Your task to perform on an android device: choose inbox layout in the gmail app Image 0: 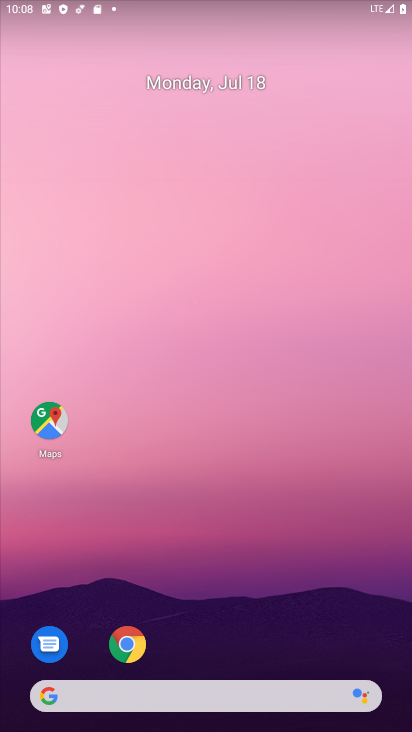
Step 0: drag from (346, 632) to (351, 155)
Your task to perform on an android device: choose inbox layout in the gmail app Image 1: 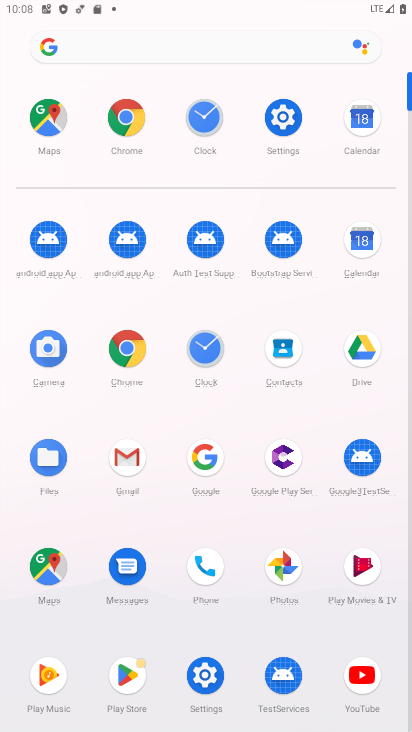
Step 1: click (124, 465)
Your task to perform on an android device: choose inbox layout in the gmail app Image 2: 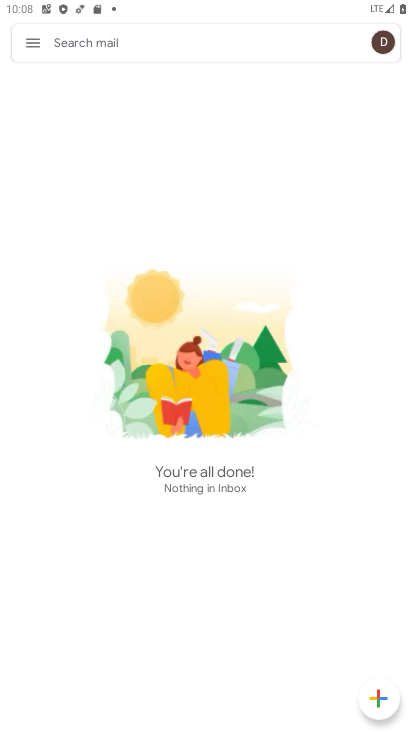
Step 2: click (33, 39)
Your task to perform on an android device: choose inbox layout in the gmail app Image 3: 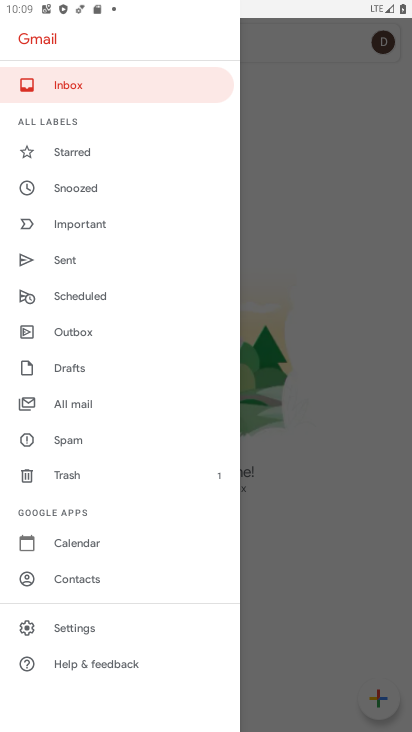
Step 3: drag from (150, 353) to (153, 288)
Your task to perform on an android device: choose inbox layout in the gmail app Image 4: 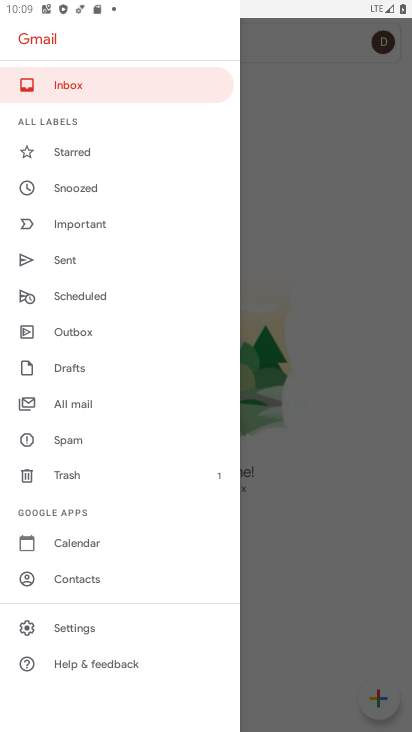
Step 4: click (113, 637)
Your task to perform on an android device: choose inbox layout in the gmail app Image 5: 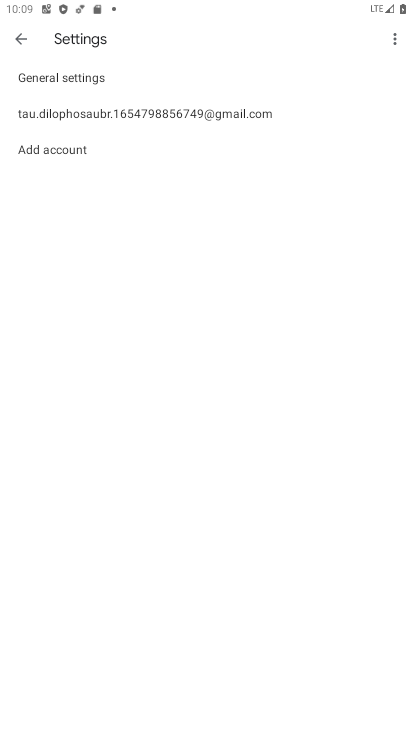
Step 5: click (281, 116)
Your task to perform on an android device: choose inbox layout in the gmail app Image 6: 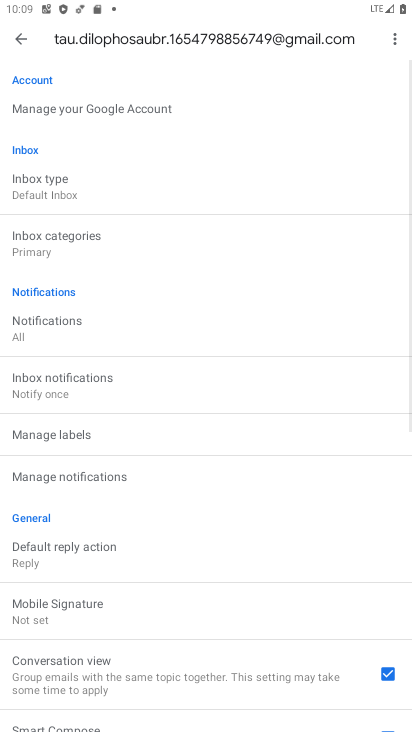
Step 6: drag from (322, 343) to (322, 282)
Your task to perform on an android device: choose inbox layout in the gmail app Image 7: 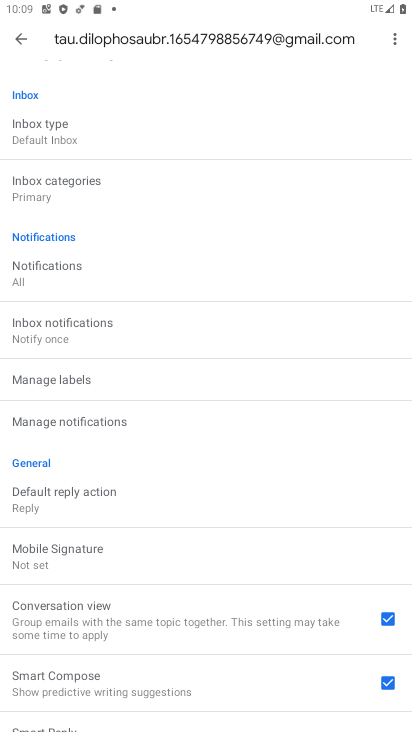
Step 7: drag from (318, 391) to (321, 321)
Your task to perform on an android device: choose inbox layout in the gmail app Image 8: 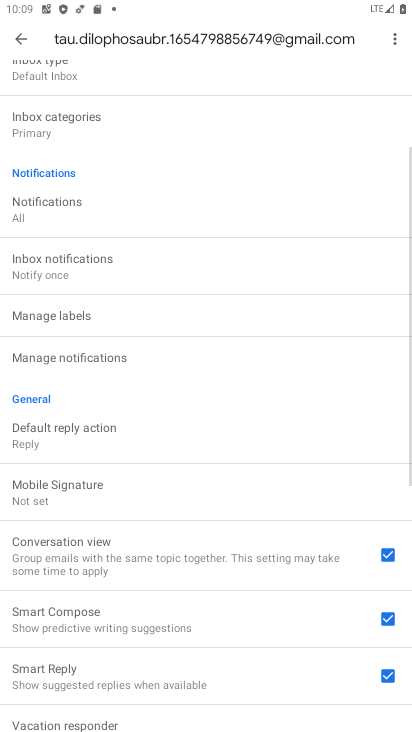
Step 8: drag from (323, 408) to (327, 342)
Your task to perform on an android device: choose inbox layout in the gmail app Image 9: 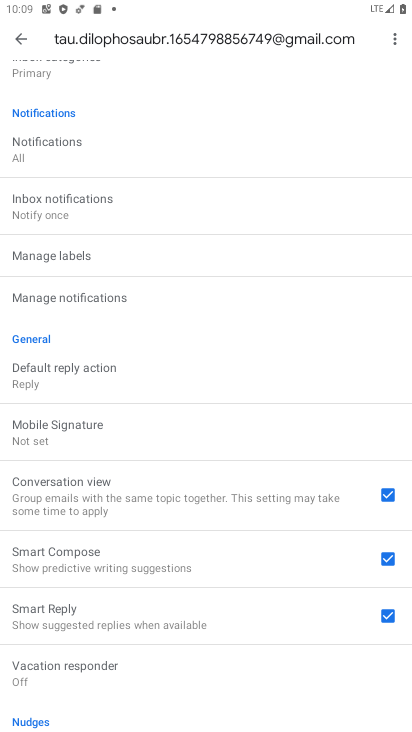
Step 9: drag from (320, 422) to (322, 350)
Your task to perform on an android device: choose inbox layout in the gmail app Image 10: 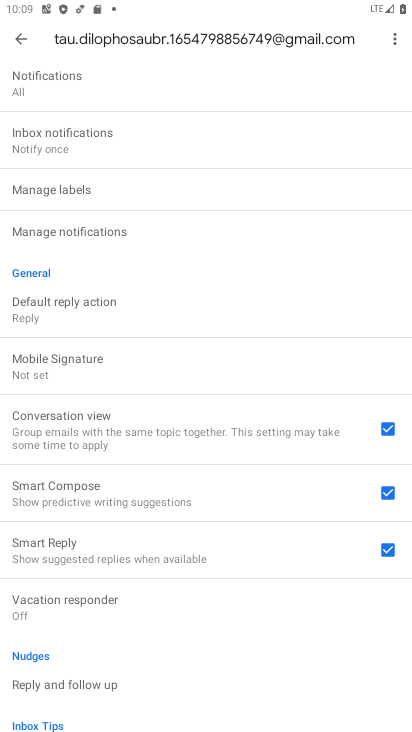
Step 10: drag from (316, 441) to (310, 358)
Your task to perform on an android device: choose inbox layout in the gmail app Image 11: 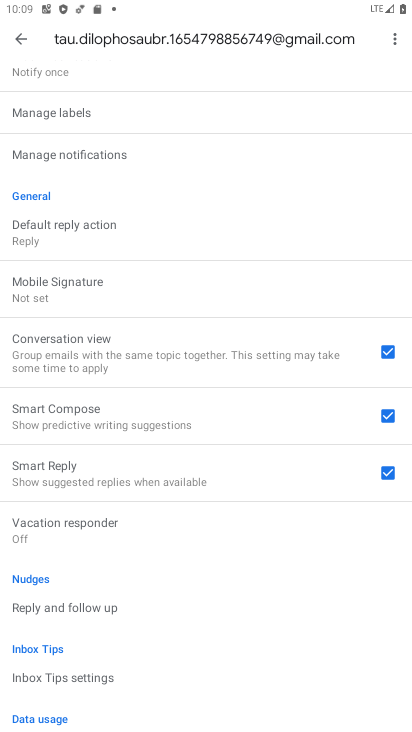
Step 11: drag from (310, 448) to (311, 360)
Your task to perform on an android device: choose inbox layout in the gmail app Image 12: 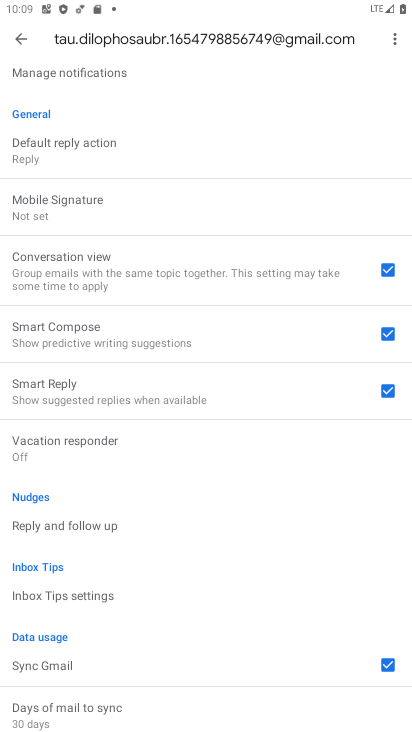
Step 12: drag from (304, 462) to (306, 367)
Your task to perform on an android device: choose inbox layout in the gmail app Image 13: 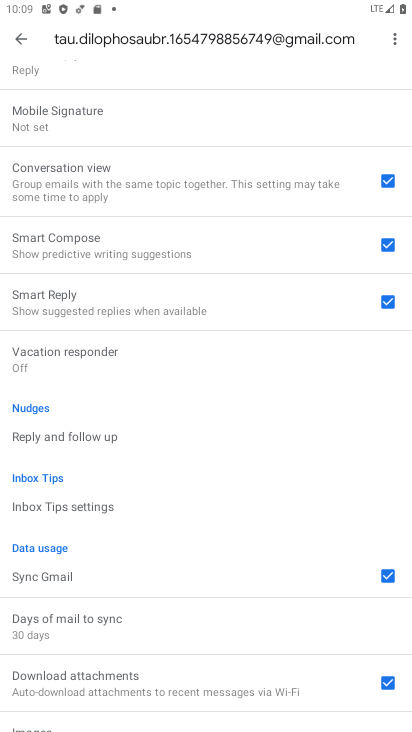
Step 13: drag from (241, 329) to (264, 402)
Your task to perform on an android device: choose inbox layout in the gmail app Image 14: 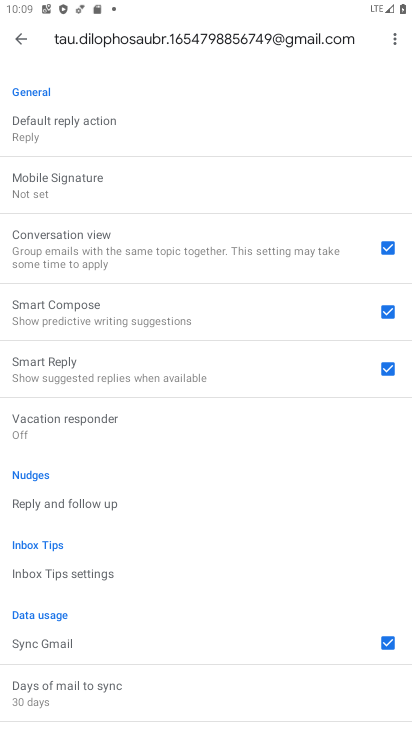
Step 14: drag from (268, 313) to (286, 390)
Your task to perform on an android device: choose inbox layout in the gmail app Image 15: 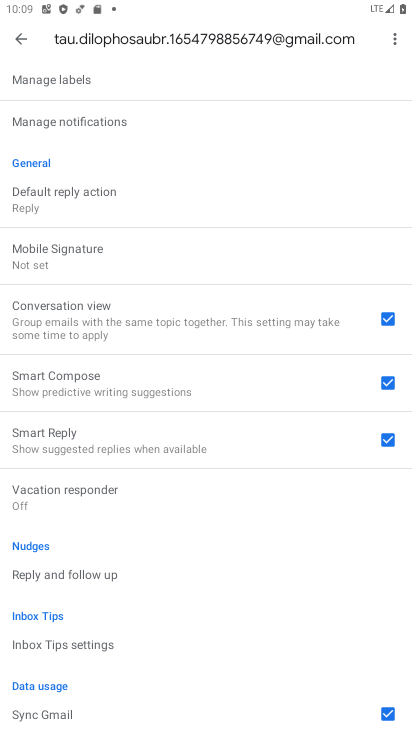
Step 15: drag from (287, 314) to (297, 395)
Your task to perform on an android device: choose inbox layout in the gmail app Image 16: 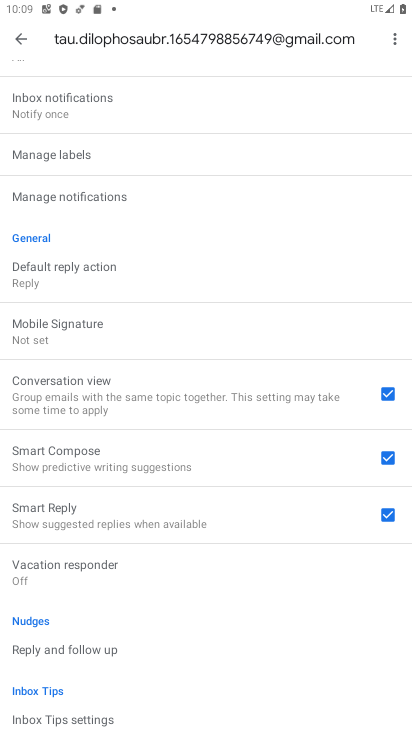
Step 16: drag from (279, 329) to (285, 404)
Your task to perform on an android device: choose inbox layout in the gmail app Image 17: 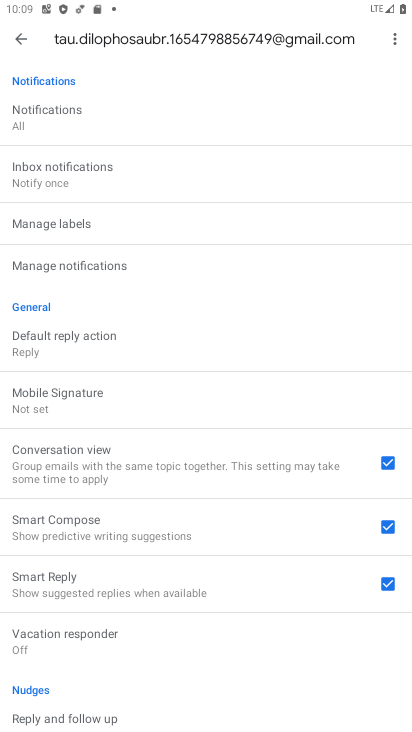
Step 17: drag from (271, 305) to (276, 383)
Your task to perform on an android device: choose inbox layout in the gmail app Image 18: 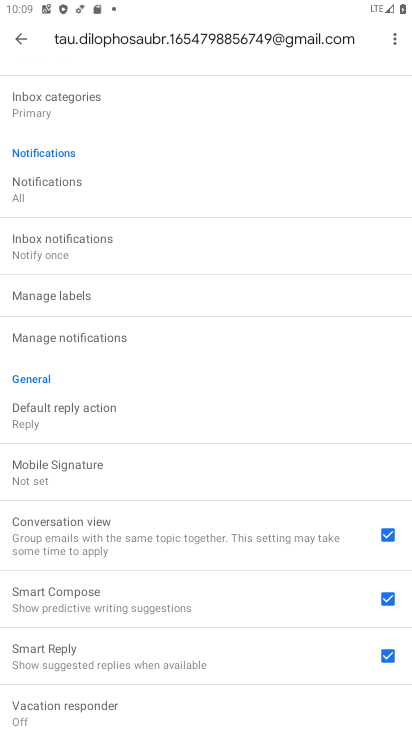
Step 18: drag from (278, 302) to (274, 404)
Your task to perform on an android device: choose inbox layout in the gmail app Image 19: 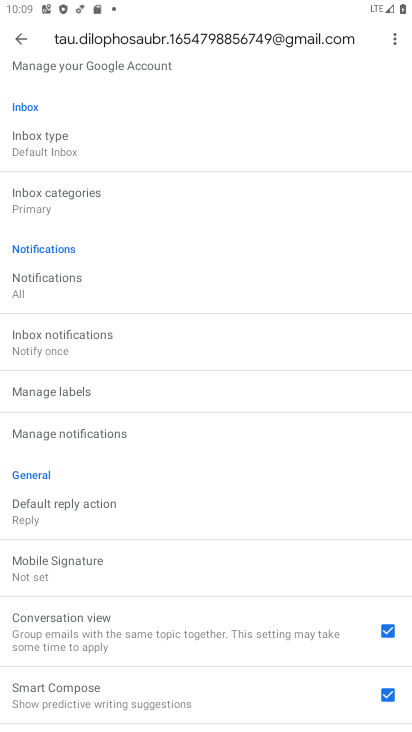
Step 19: drag from (256, 305) to (266, 423)
Your task to perform on an android device: choose inbox layout in the gmail app Image 20: 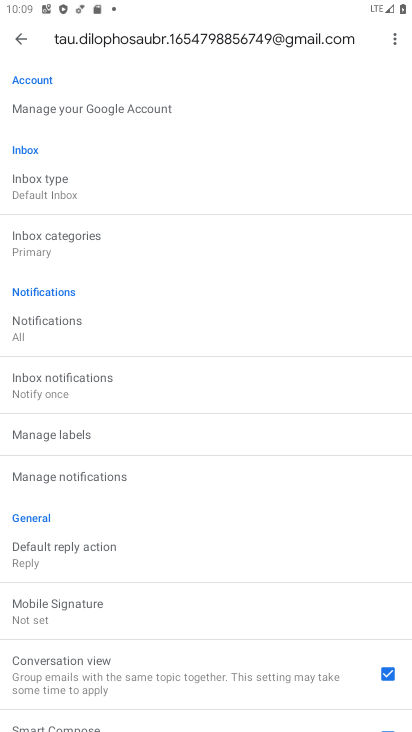
Step 20: click (123, 202)
Your task to perform on an android device: choose inbox layout in the gmail app Image 21: 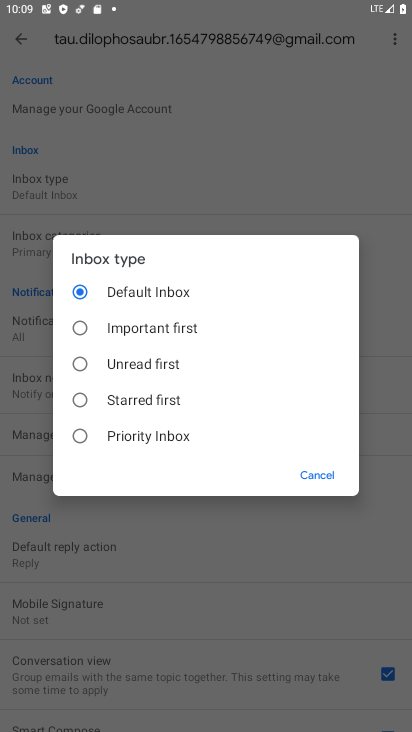
Step 21: click (156, 331)
Your task to perform on an android device: choose inbox layout in the gmail app Image 22: 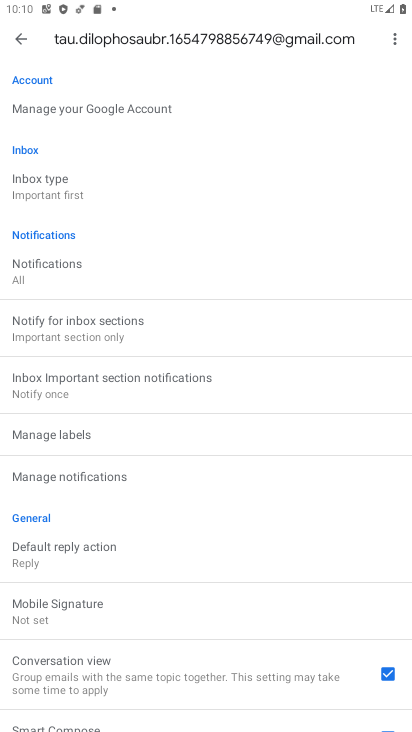
Step 22: task complete